Your task to perform on an android device: set the stopwatch Image 0: 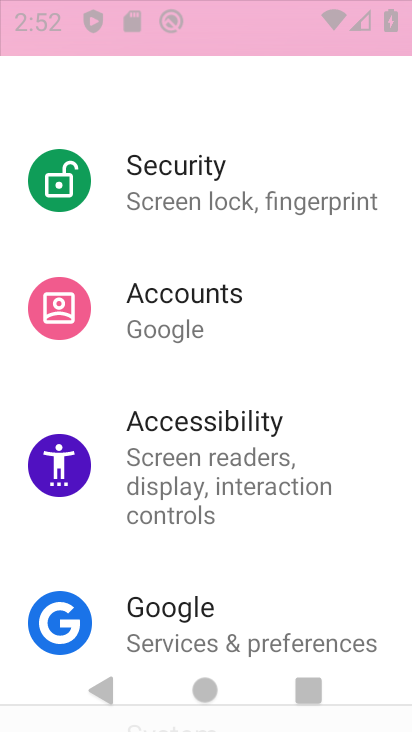
Step 0: drag from (225, 580) to (369, 192)
Your task to perform on an android device: set the stopwatch Image 1: 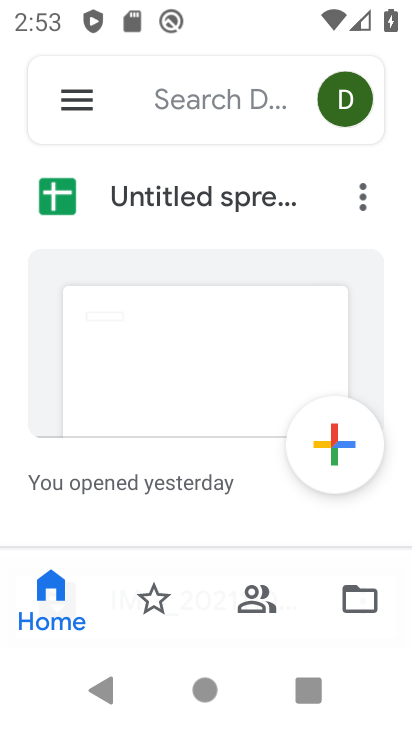
Step 1: press home button
Your task to perform on an android device: set the stopwatch Image 2: 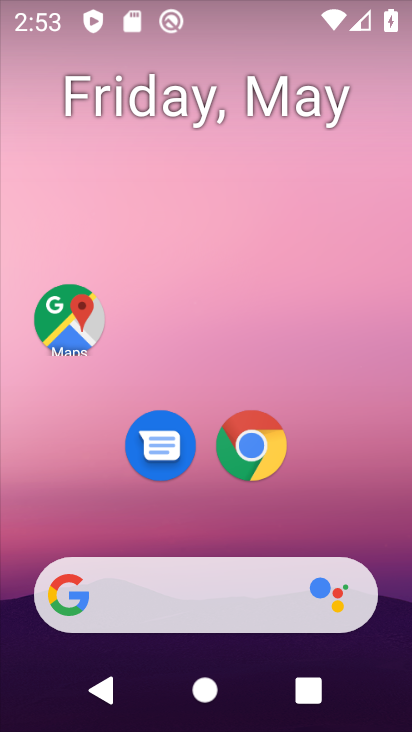
Step 2: drag from (271, 599) to (322, 353)
Your task to perform on an android device: set the stopwatch Image 3: 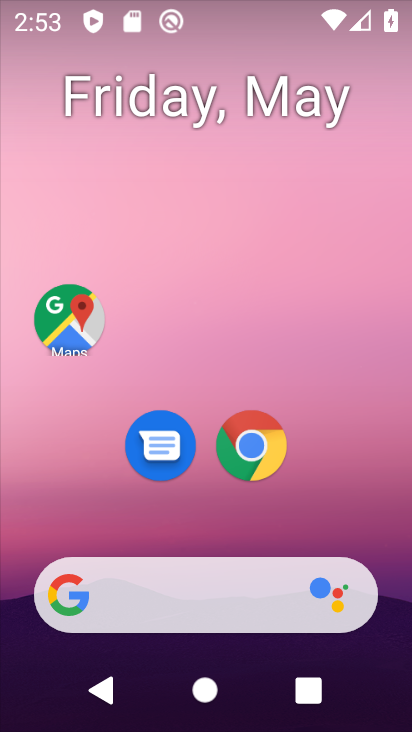
Step 3: drag from (176, 585) to (149, 91)
Your task to perform on an android device: set the stopwatch Image 4: 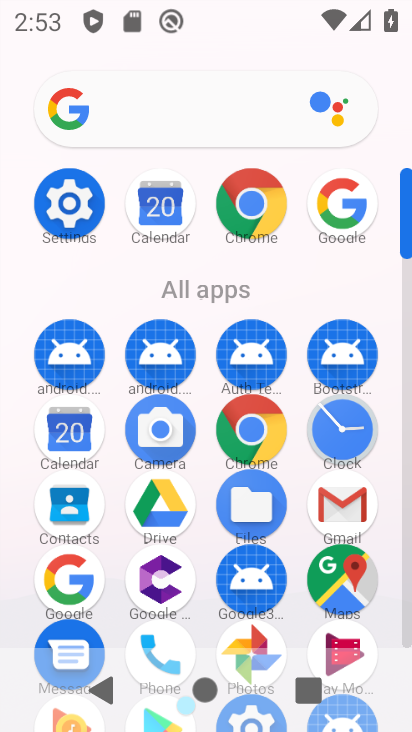
Step 4: click (353, 448)
Your task to perform on an android device: set the stopwatch Image 5: 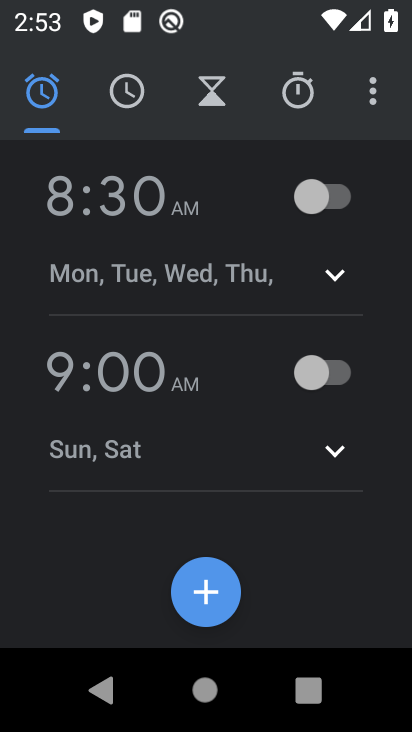
Step 5: click (307, 116)
Your task to perform on an android device: set the stopwatch Image 6: 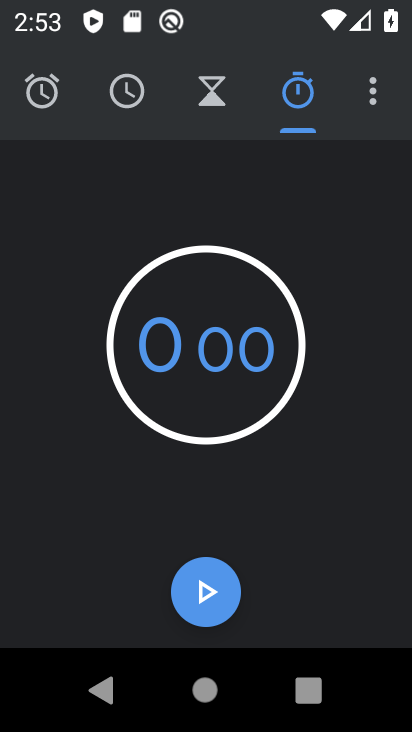
Step 6: click (198, 601)
Your task to perform on an android device: set the stopwatch Image 7: 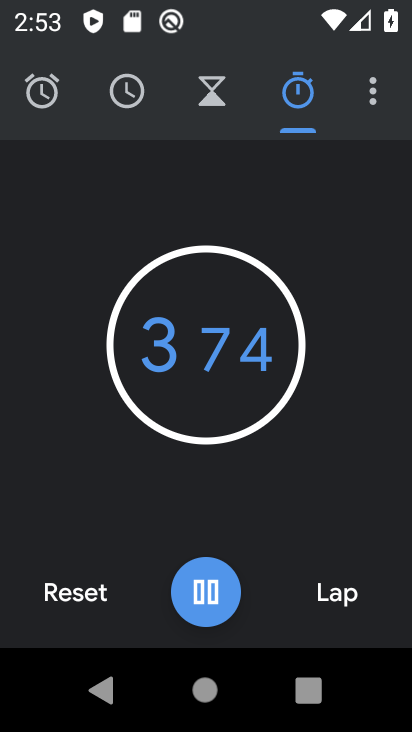
Step 7: task complete